Your task to perform on an android device: When is my next appointment? Image 0: 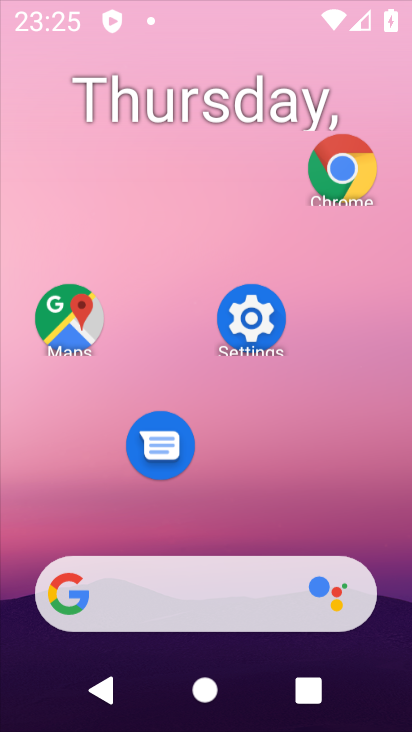
Step 0: click (307, 117)
Your task to perform on an android device: When is my next appointment? Image 1: 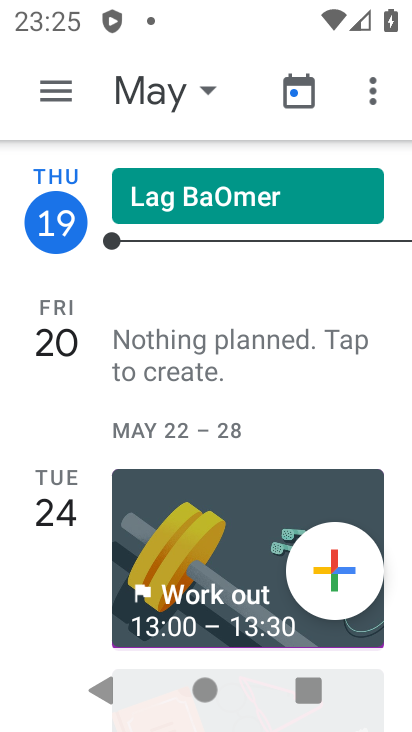
Step 1: click (152, 105)
Your task to perform on an android device: When is my next appointment? Image 2: 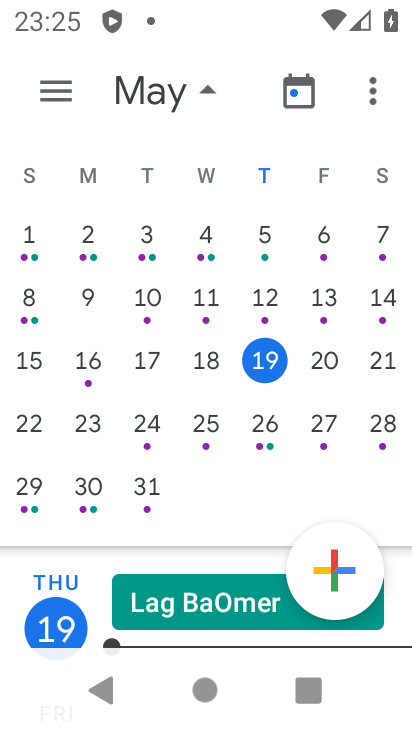
Step 2: click (262, 364)
Your task to perform on an android device: When is my next appointment? Image 3: 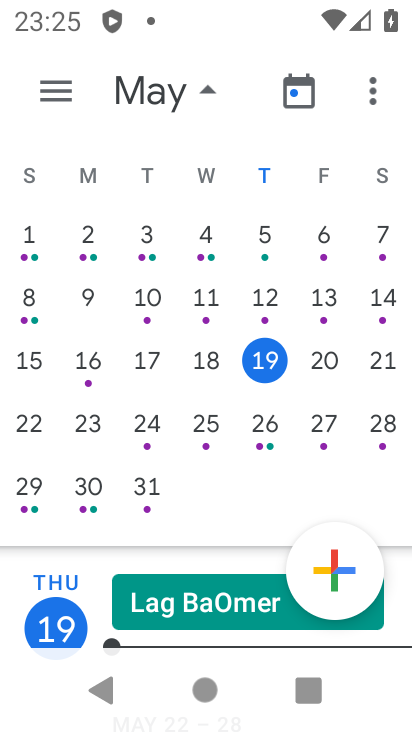
Step 3: task complete